Your task to perform on an android device: change the clock display to show seconds Image 0: 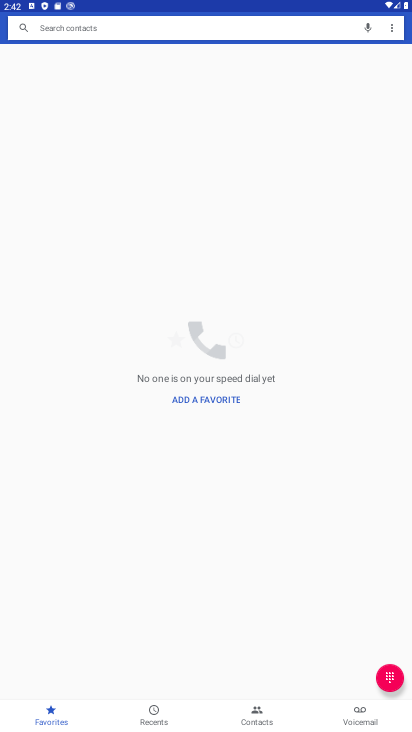
Step 0: press home button
Your task to perform on an android device: change the clock display to show seconds Image 1: 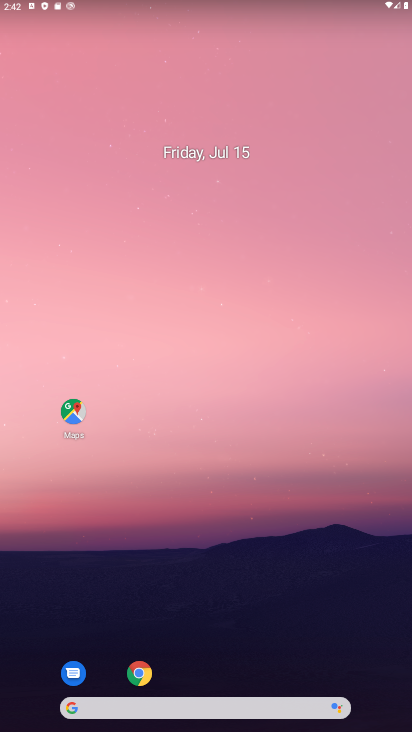
Step 1: drag from (368, 659) to (335, 151)
Your task to perform on an android device: change the clock display to show seconds Image 2: 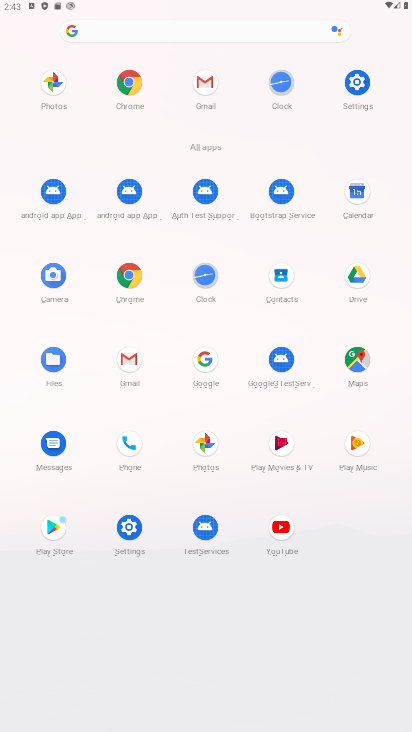
Step 2: click (203, 270)
Your task to perform on an android device: change the clock display to show seconds Image 3: 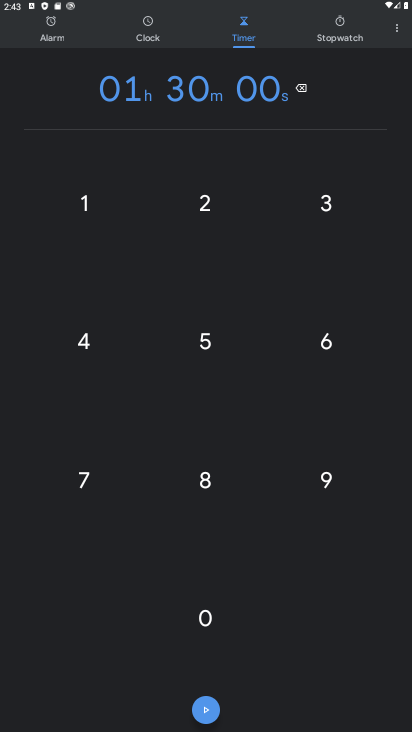
Step 3: click (397, 33)
Your task to perform on an android device: change the clock display to show seconds Image 4: 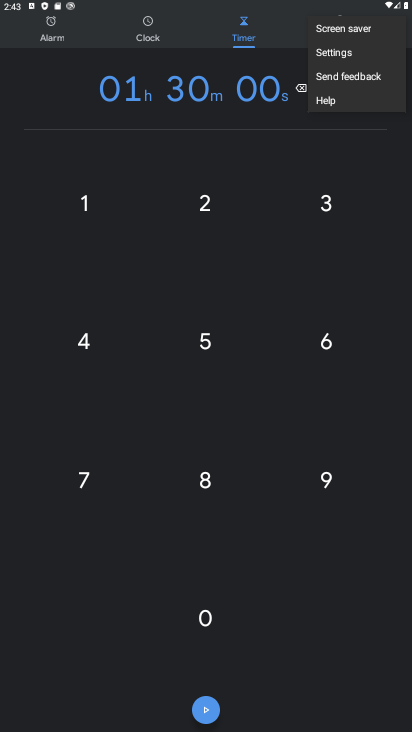
Step 4: click (332, 54)
Your task to perform on an android device: change the clock display to show seconds Image 5: 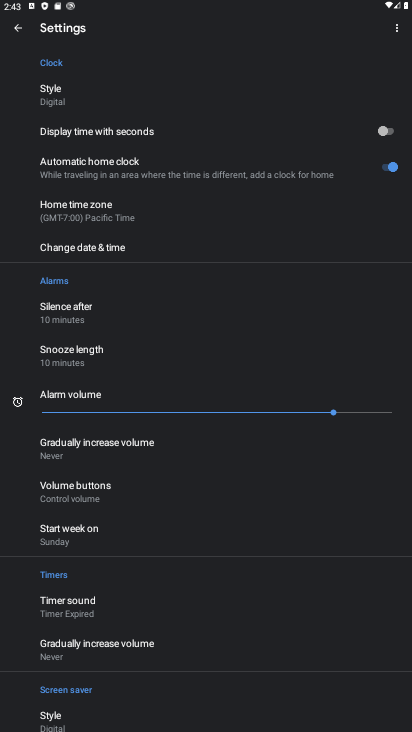
Step 5: click (389, 133)
Your task to perform on an android device: change the clock display to show seconds Image 6: 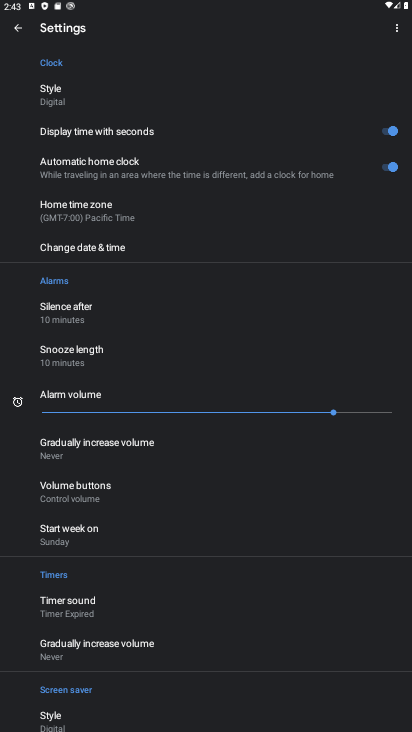
Step 6: task complete